Your task to perform on an android device: empty trash in the gmail app Image 0: 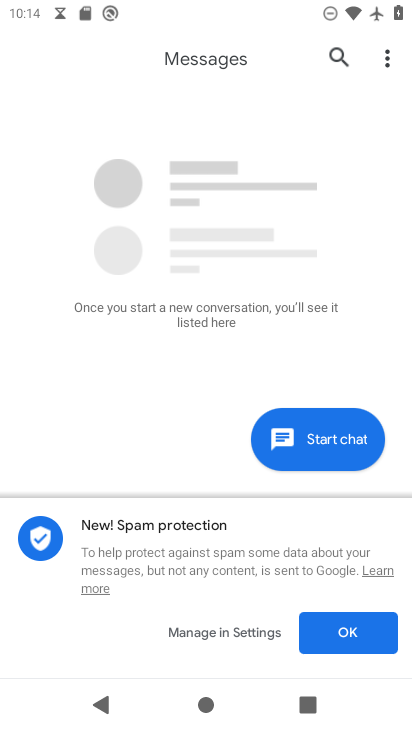
Step 0: press home button
Your task to perform on an android device: empty trash in the gmail app Image 1: 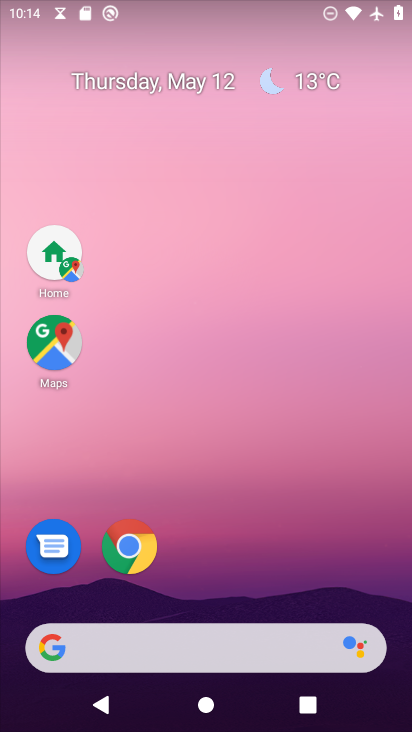
Step 1: drag from (184, 654) to (338, 147)
Your task to perform on an android device: empty trash in the gmail app Image 2: 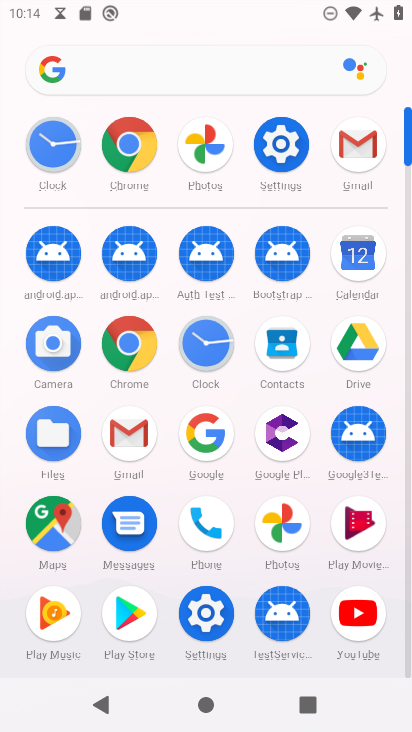
Step 2: click (361, 153)
Your task to perform on an android device: empty trash in the gmail app Image 3: 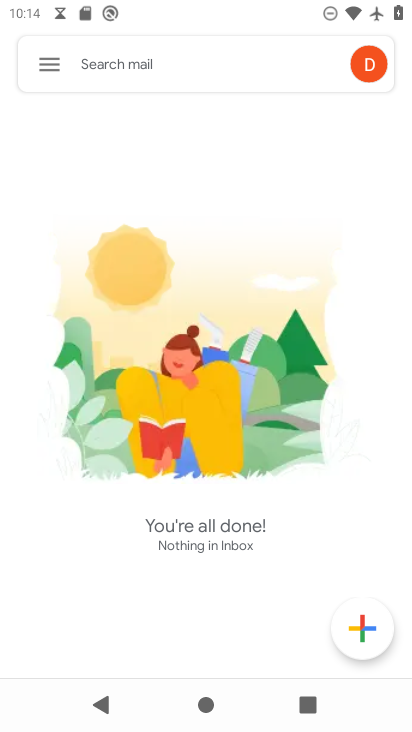
Step 3: click (49, 67)
Your task to perform on an android device: empty trash in the gmail app Image 4: 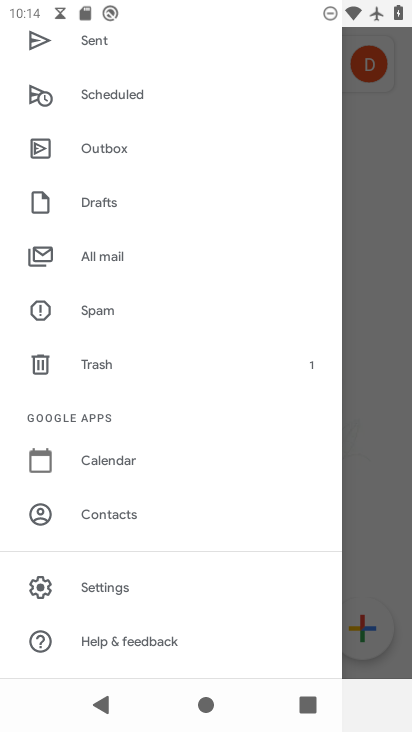
Step 4: click (91, 369)
Your task to perform on an android device: empty trash in the gmail app Image 5: 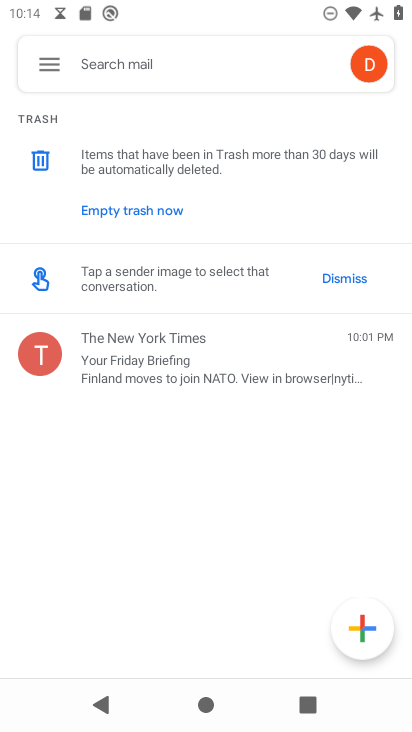
Step 5: click (153, 208)
Your task to perform on an android device: empty trash in the gmail app Image 6: 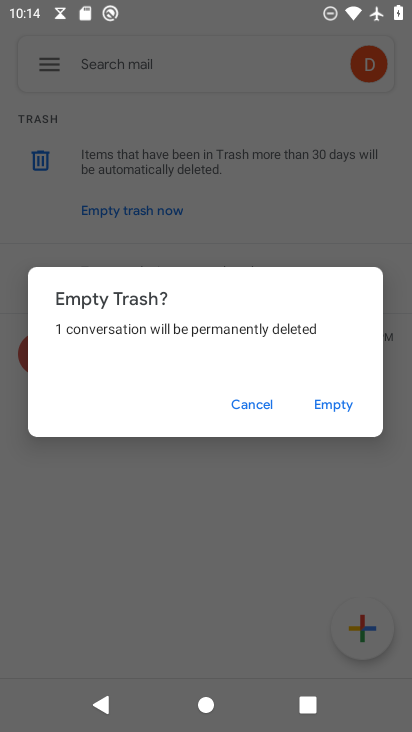
Step 6: click (321, 407)
Your task to perform on an android device: empty trash in the gmail app Image 7: 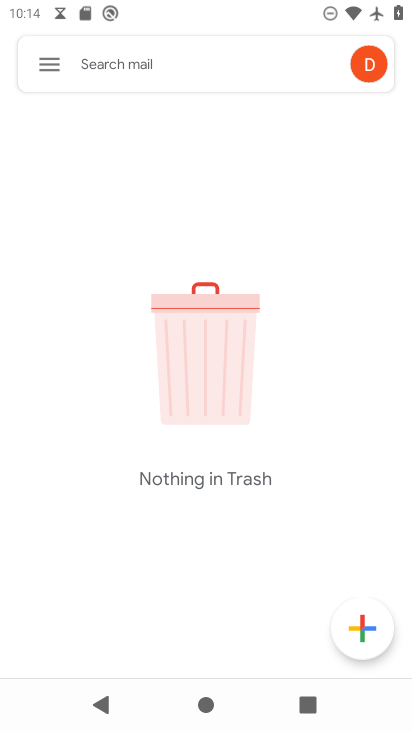
Step 7: task complete